Your task to perform on an android device: Open wifi settings Image 0: 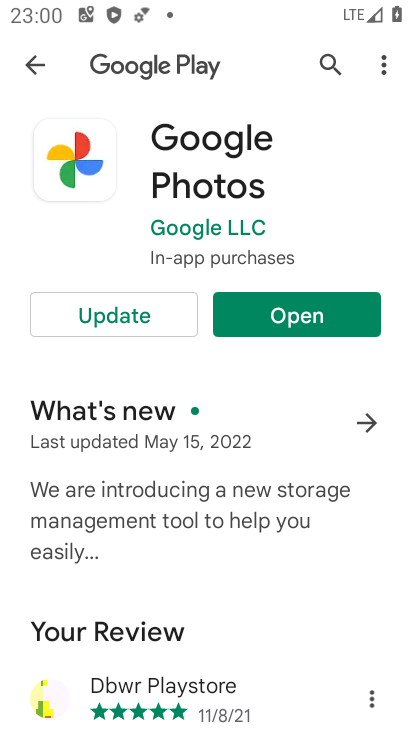
Step 0: press home button
Your task to perform on an android device: Open wifi settings Image 1: 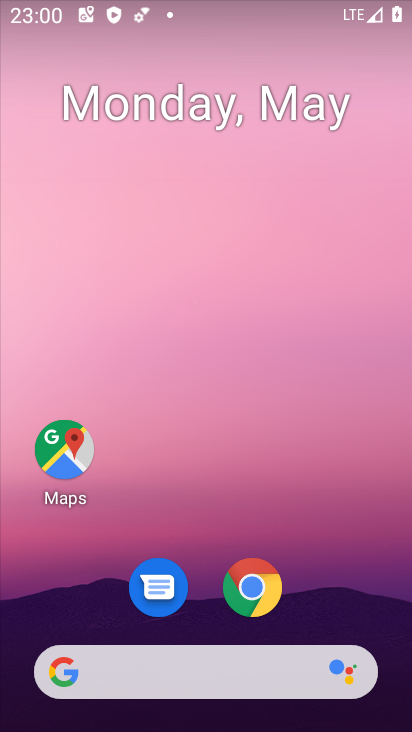
Step 1: drag from (227, 628) to (183, 59)
Your task to perform on an android device: Open wifi settings Image 2: 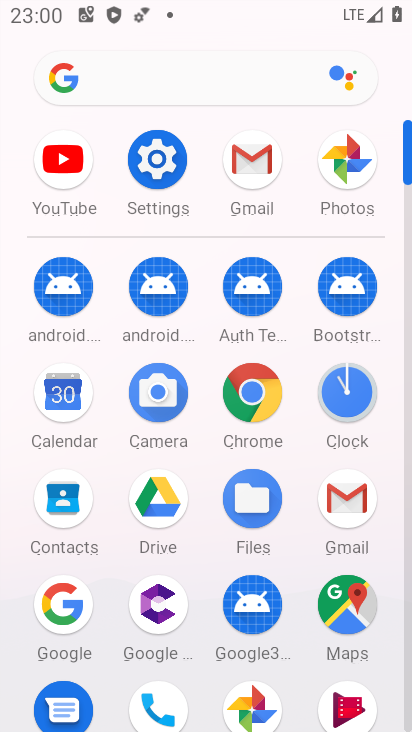
Step 2: click (143, 166)
Your task to perform on an android device: Open wifi settings Image 3: 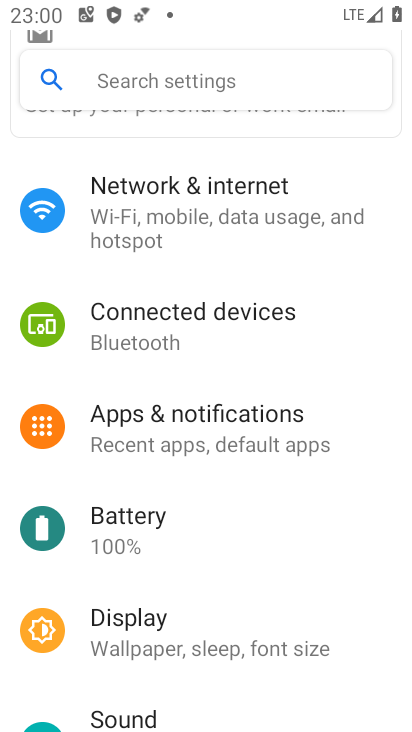
Step 3: drag from (151, 163) to (164, 527)
Your task to perform on an android device: Open wifi settings Image 4: 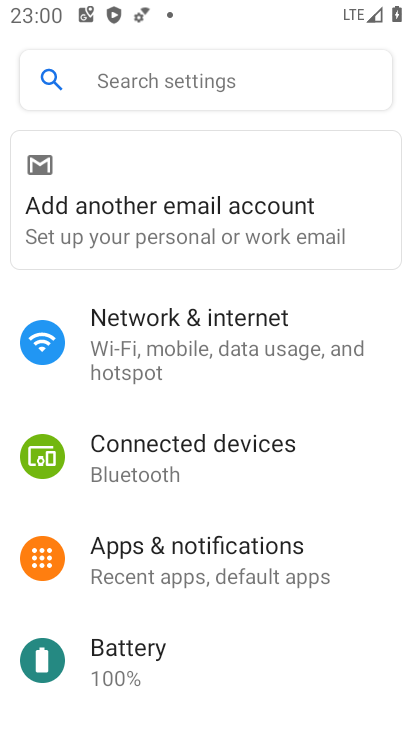
Step 4: click (159, 353)
Your task to perform on an android device: Open wifi settings Image 5: 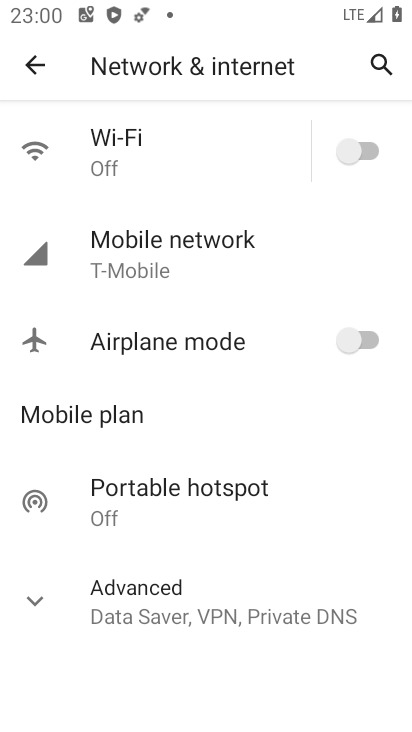
Step 5: click (158, 160)
Your task to perform on an android device: Open wifi settings Image 6: 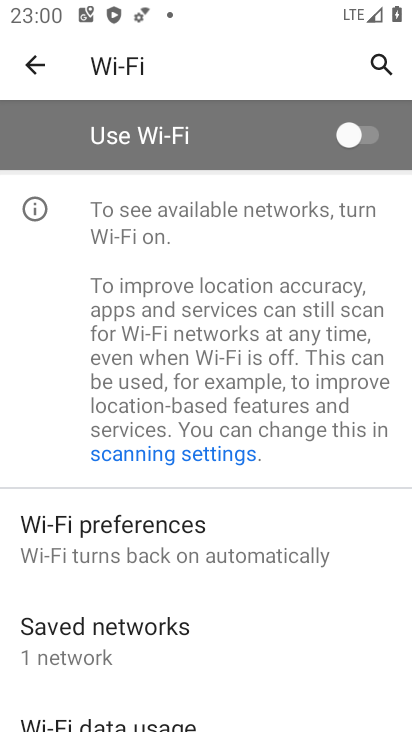
Step 6: task complete